Your task to perform on an android device: Open Google Chrome Image 0: 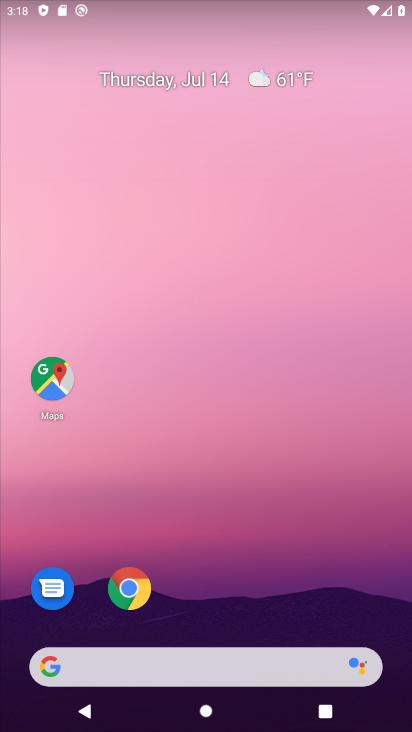
Step 0: press home button
Your task to perform on an android device: Open Google Chrome Image 1: 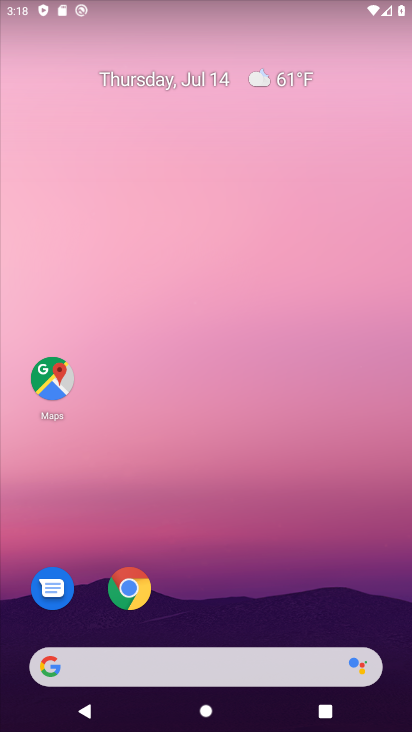
Step 1: click (138, 587)
Your task to perform on an android device: Open Google Chrome Image 2: 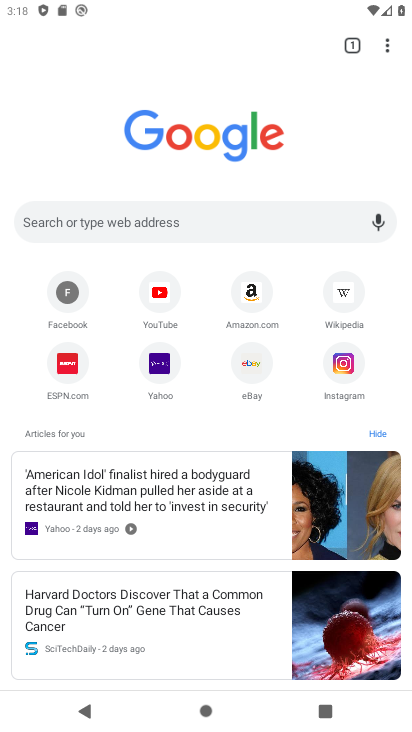
Step 2: task complete